Your task to perform on an android device: Search for seafood restaurants on Google Maps Image 0: 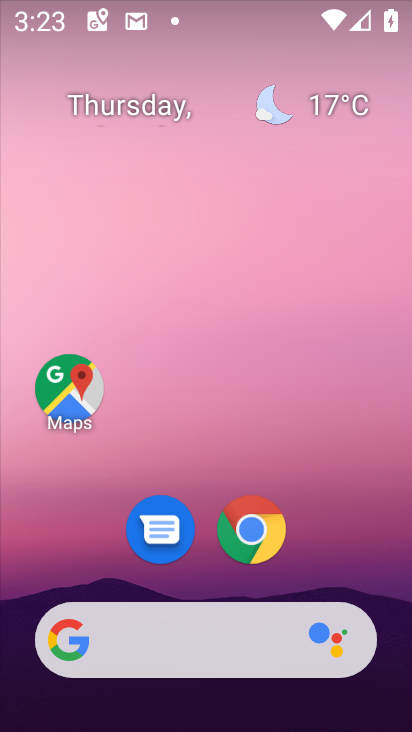
Step 0: click (66, 399)
Your task to perform on an android device: Search for seafood restaurants on Google Maps Image 1: 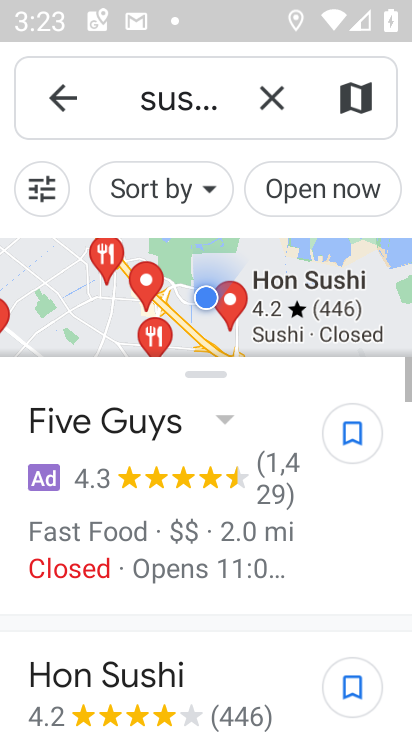
Step 1: click (255, 100)
Your task to perform on an android device: Search for seafood restaurants on Google Maps Image 2: 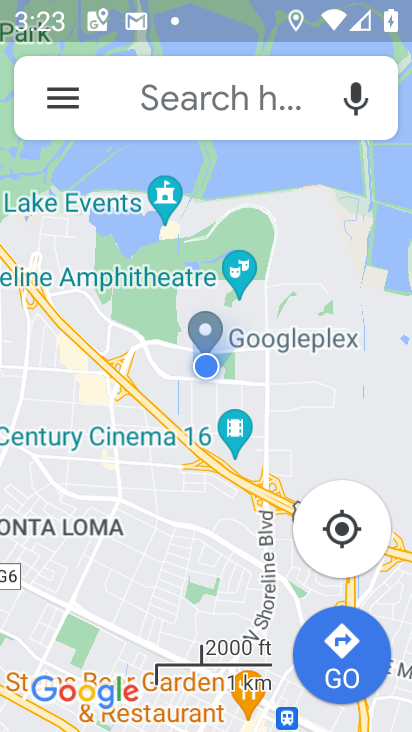
Step 2: click (179, 94)
Your task to perform on an android device: Search for seafood restaurants on Google Maps Image 3: 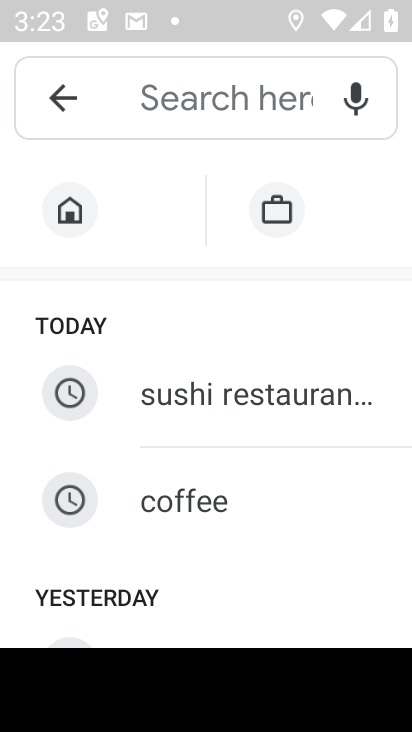
Step 3: drag from (263, 574) to (233, 152)
Your task to perform on an android device: Search for seafood restaurants on Google Maps Image 4: 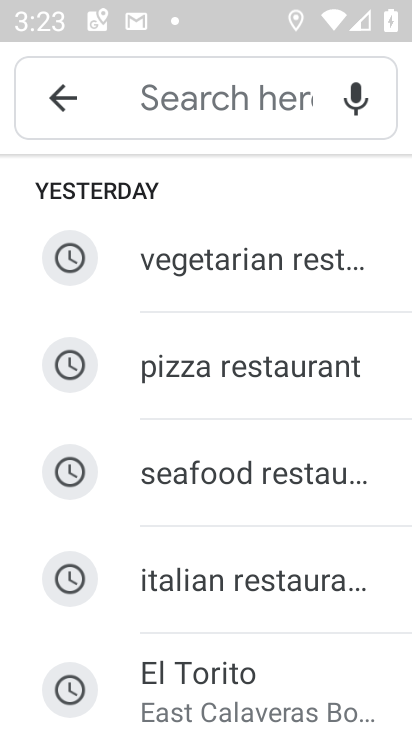
Step 4: click (194, 477)
Your task to perform on an android device: Search for seafood restaurants on Google Maps Image 5: 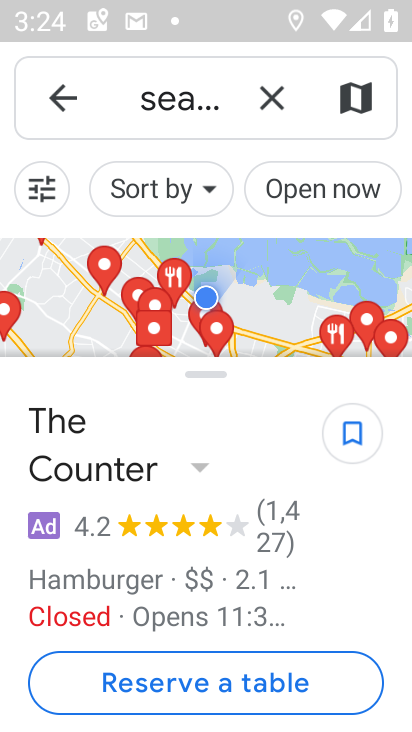
Step 5: task complete